Your task to perform on an android device: search for starred emails in the gmail app Image 0: 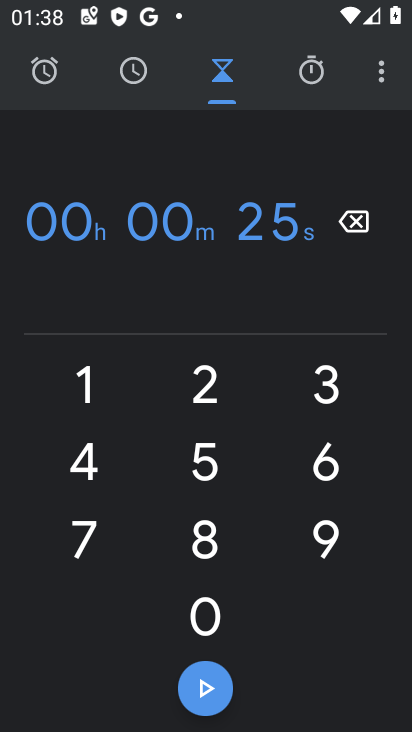
Step 0: press home button
Your task to perform on an android device: search for starred emails in the gmail app Image 1: 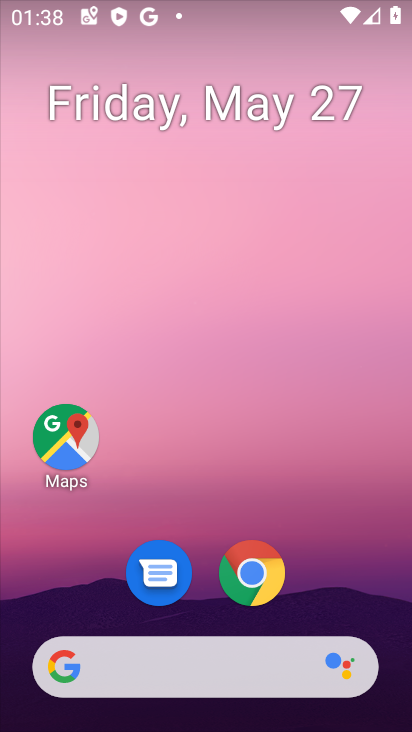
Step 1: drag from (194, 634) to (139, 78)
Your task to perform on an android device: search for starred emails in the gmail app Image 2: 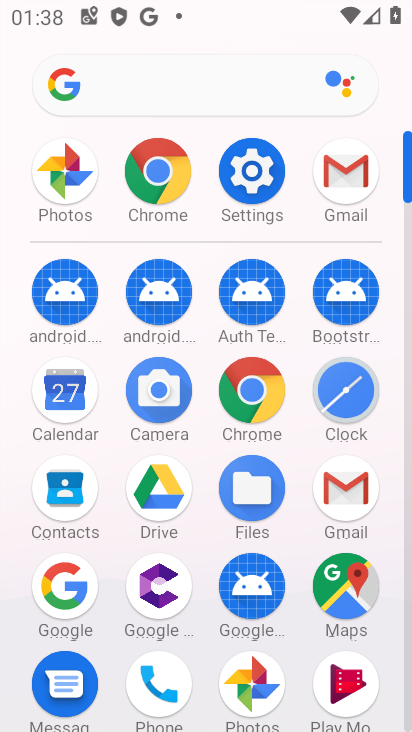
Step 2: click (330, 490)
Your task to perform on an android device: search for starred emails in the gmail app Image 3: 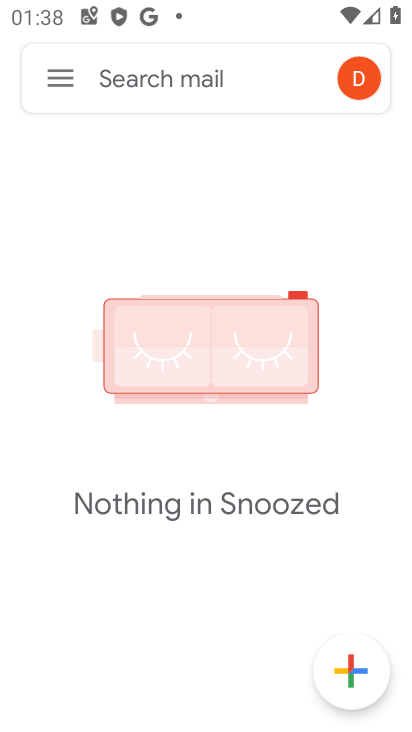
Step 3: click (52, 78)
Your task to perform on an android device: search for starred emails in the gmail app Image 4: 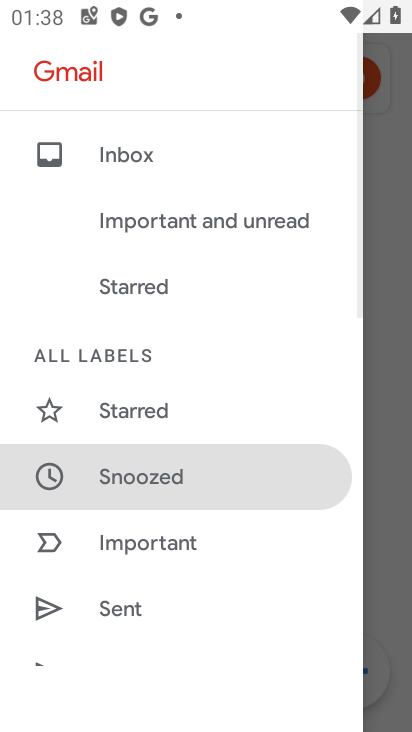
Step 4: click (146, 408)
Your task to perform on an android device: search for starred emails in the gmail app Image 5: 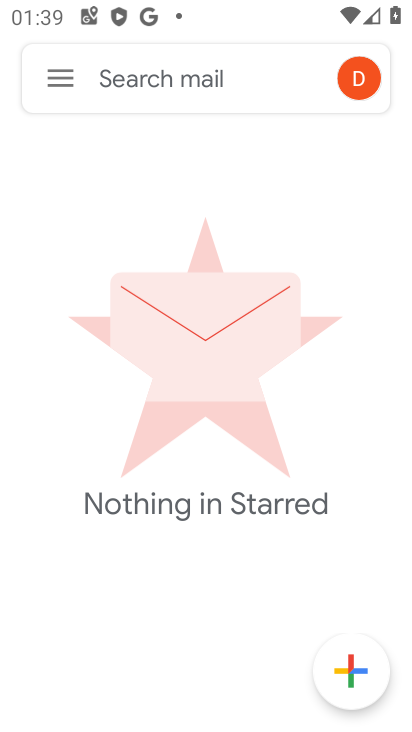
Step 5: task complete